Your task to perform on an android device: open app "Pinterest" (install if not already installed), go to login, and select forgot password Image 0: 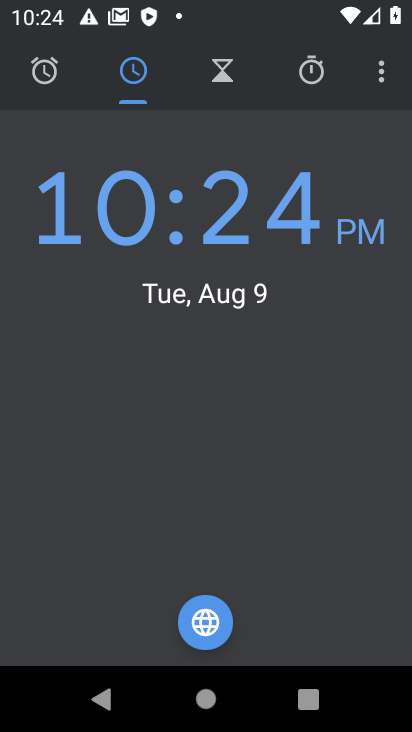
Step 0: press home button
Your task to perform on an android device: open app "Pinterest" (install if not already installed), go to login, and select forgot password Image 1: 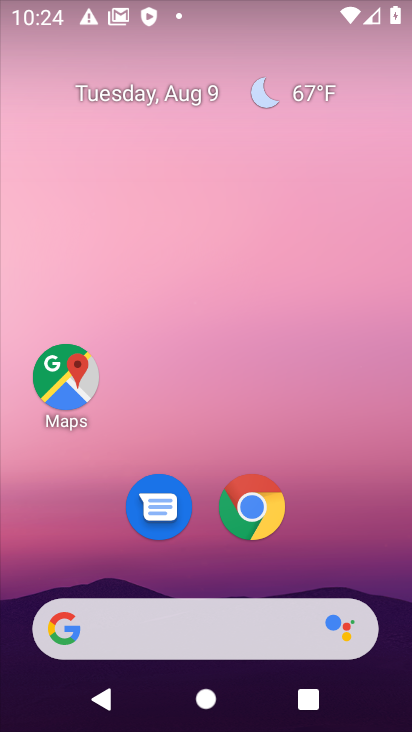
Step 1: drag from (237, 617) to (237, 61)
Your task to perform on an android device: open app "Pinterest" (install if not already installed), go to login, and select forgot password Image 2: 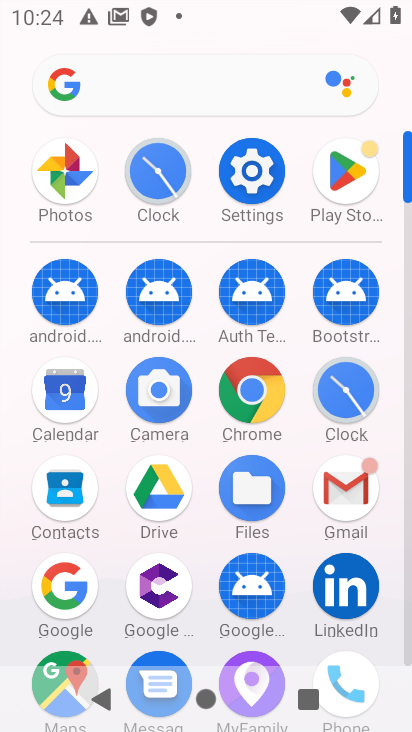
Step 2: click (353, 165)
Your task to perform on an android device: open app "Pinterest" (install if not already installed), go to login, and select forgot password Image 3: 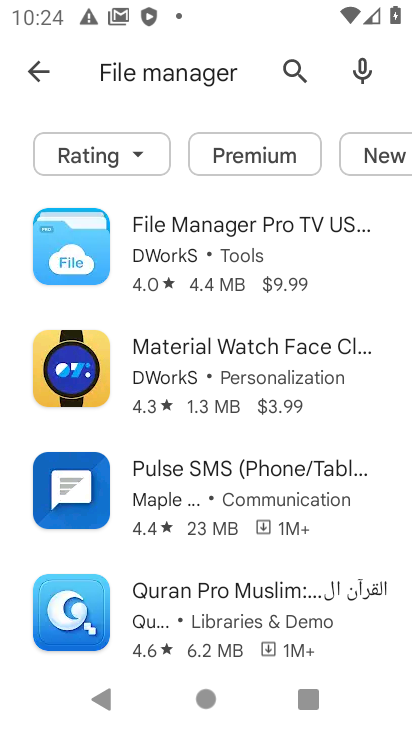
Step 3: click (281, 78)
Your task to perform on an android device: open app "Pinterest" (install if not already installed), go to login, and select forgot password Image 4: 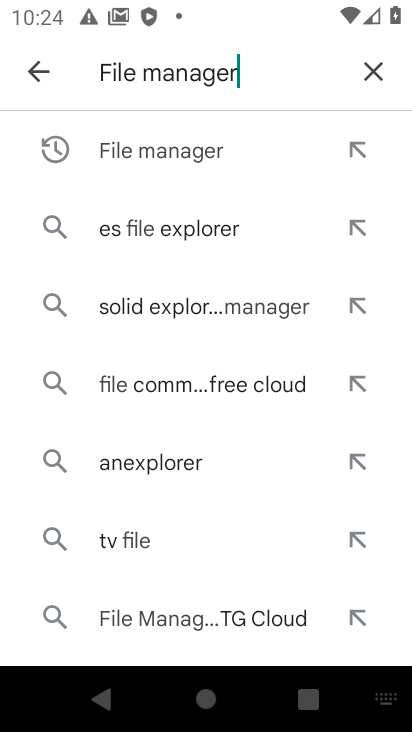
Step 4: click (372, 68)
Your task to perform on an android device: open app "Pinterest" (install if not already installed), go to login, and select forgot password Image 5: 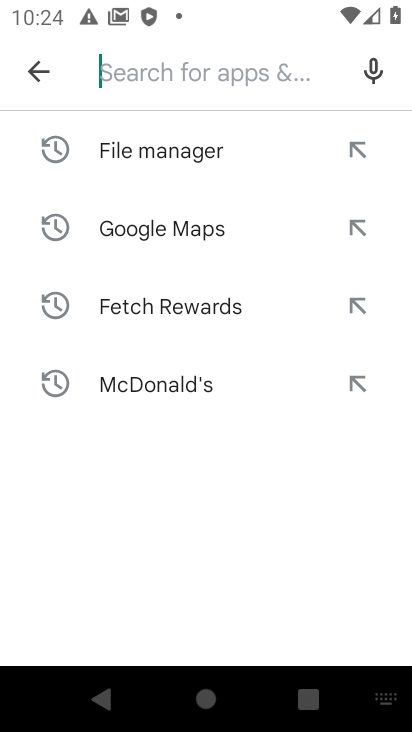
Step 5: type "Pinterest"
Your task to perform on an android device: open app "Pinterest" (install if not already installed), go to login, and select forgot password Image 6: 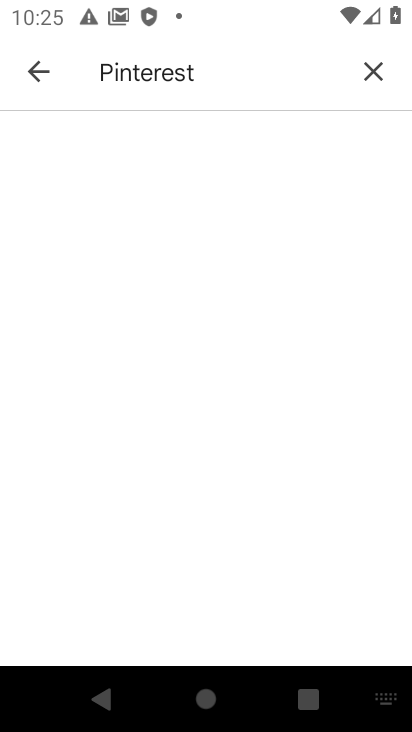
Step 6: press enter
Your task to perform on an android device: open app "Pinterest" (install if not already installed), go to login, and select forgot password Image 7: 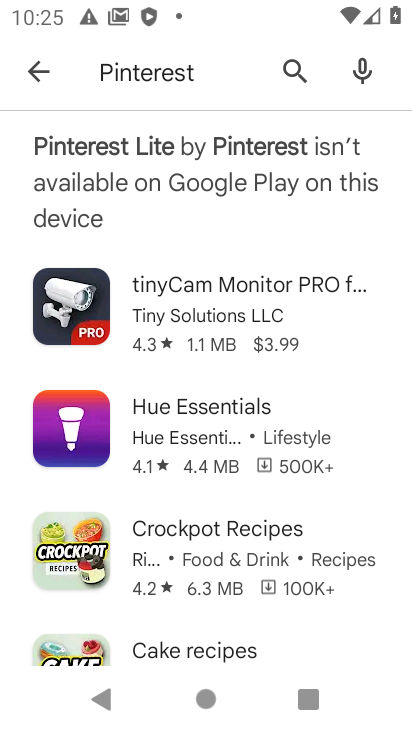
Step 7: task complete